Your task to perform on an android device: change the clock display to show seconds Image 0: 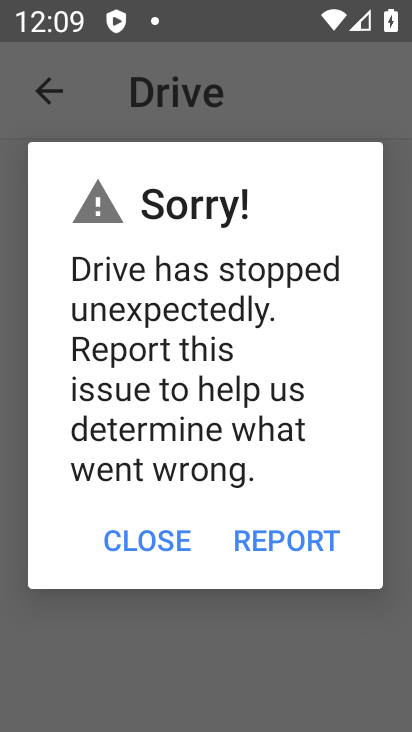
Step 0: press home button
Your task to perform on an android device: change the clock display to show seconds Image 1: 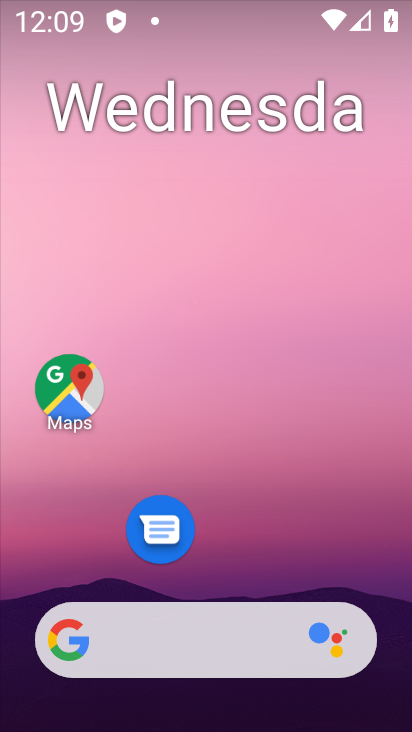
Step 1: drag from (221, 567) to (227, 111)
Your task to perform on an android device: change the clock display to show seconds Image 2: 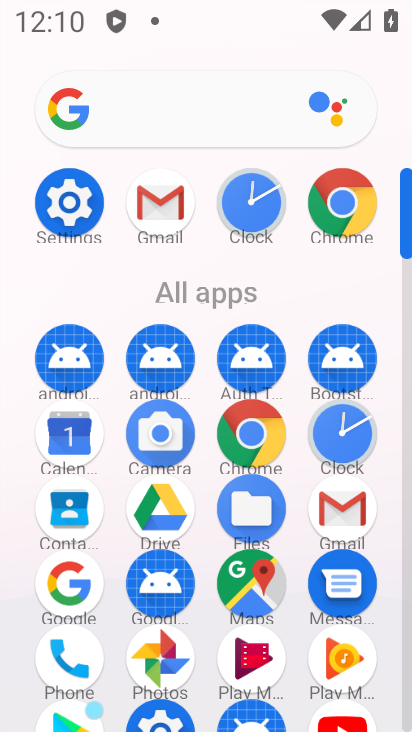
Step 2: click (257, 225)
Your task to perform on an android device: change the clock display to show seconds Image 3: 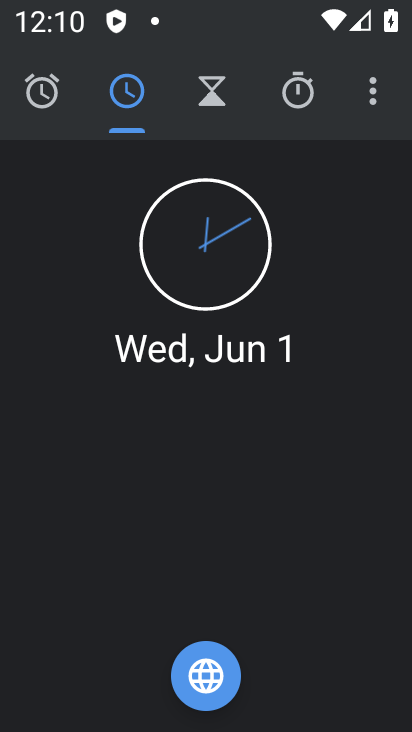
Step 3: click (378, 99)
Your task to perform on an android device: change the clock display to show seconds Image 4: 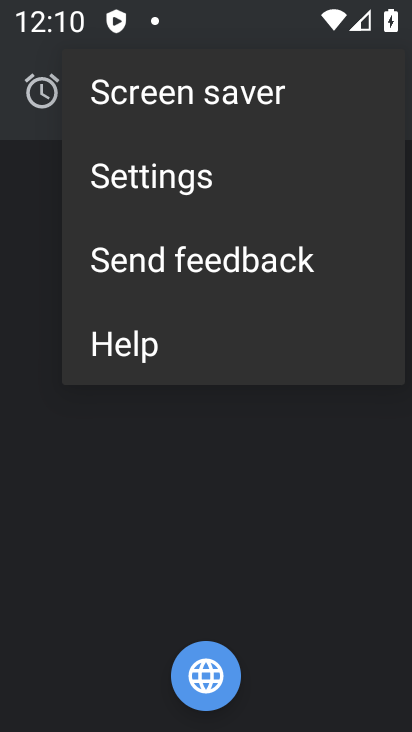
Step 4: click (177, 183)
Your task to perform on an android device: change the clock display to show seconds Image 5: 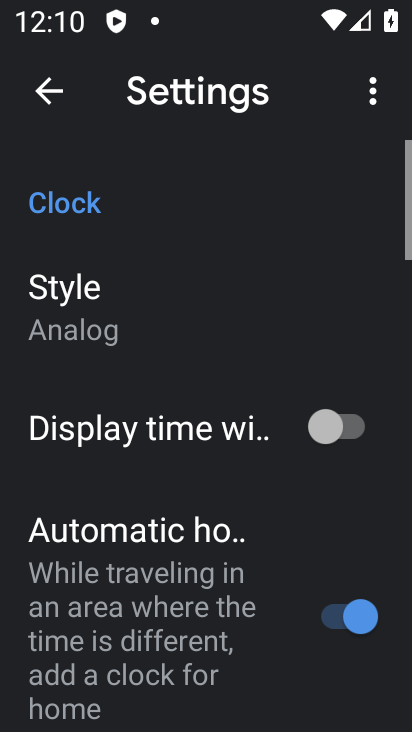
Step 5: click (309, 436)
Your task to perform on an android device: change the clock display to show seconds Image 6: 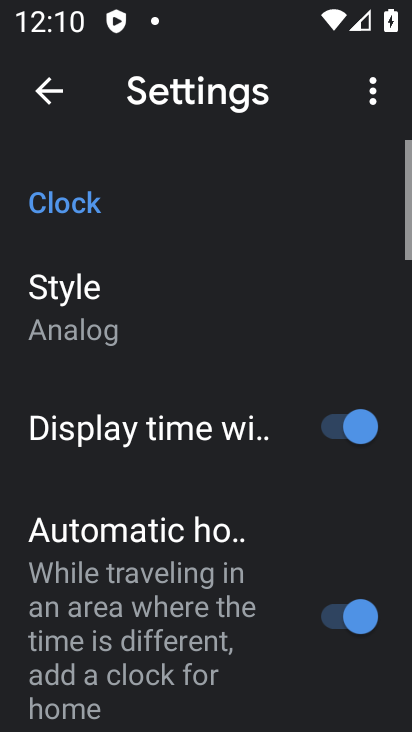
Step 6: task complete